Your task to perform on an android device: open app "DoorDash - Food Delivery" (install if not already installed), go to login, and select forgot password Image 0: 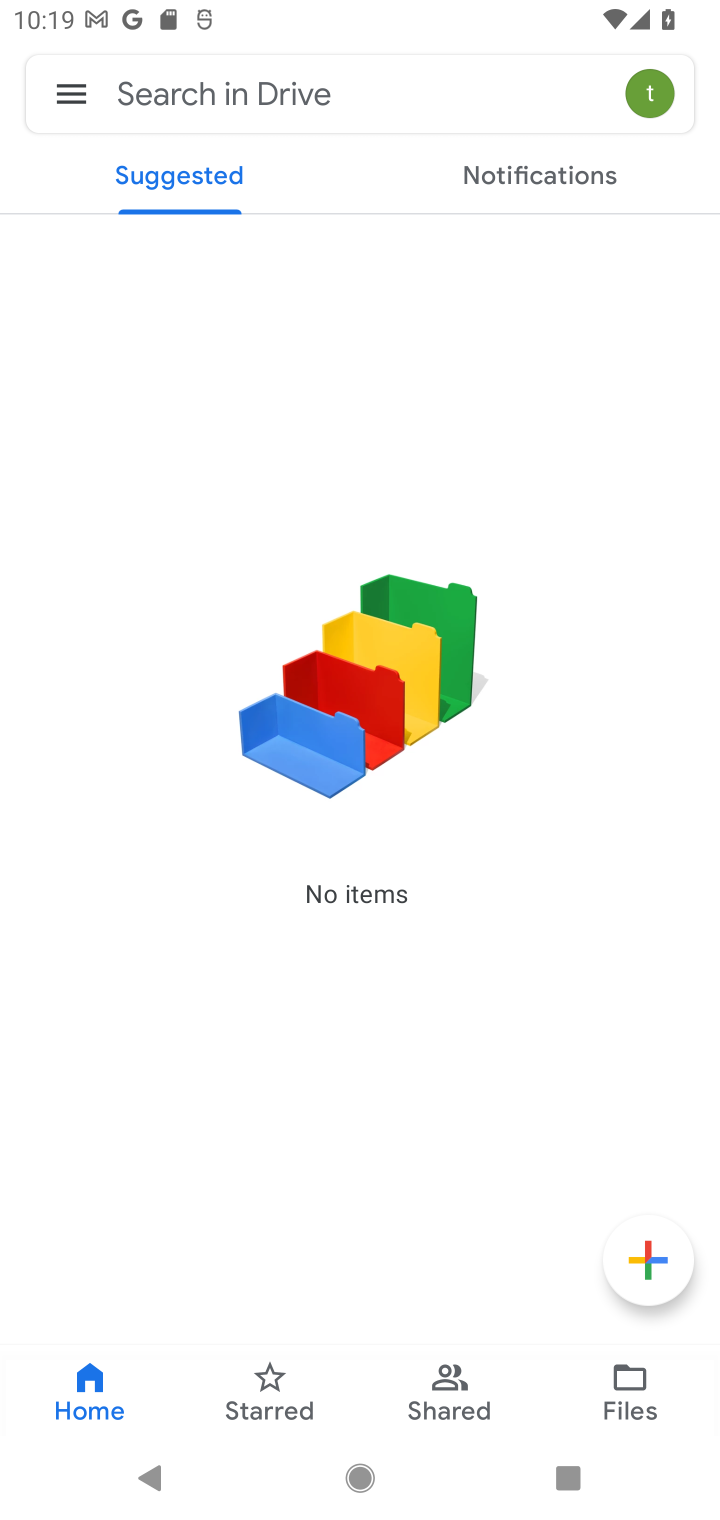
Step 0: press home button
Your task to perform on an android device: open app "DoorDash - Food Delivery" (install if not already installed), go to login, and select forgot password Image 1: 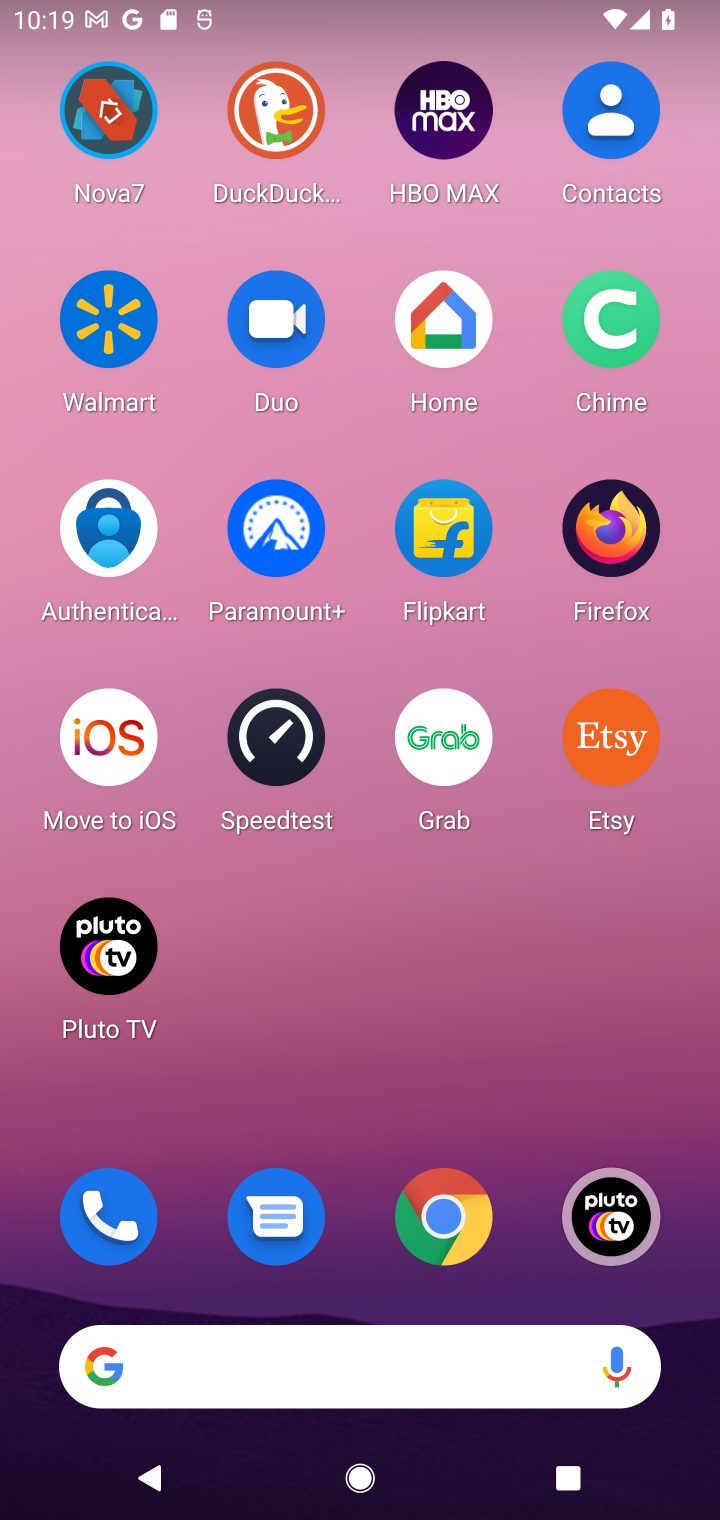
Step 1: press home button
Your task to perform on an android device: open app "DoorDash - Food Delivery" (install if not already installed), go to login, and select forgot password Image 2: 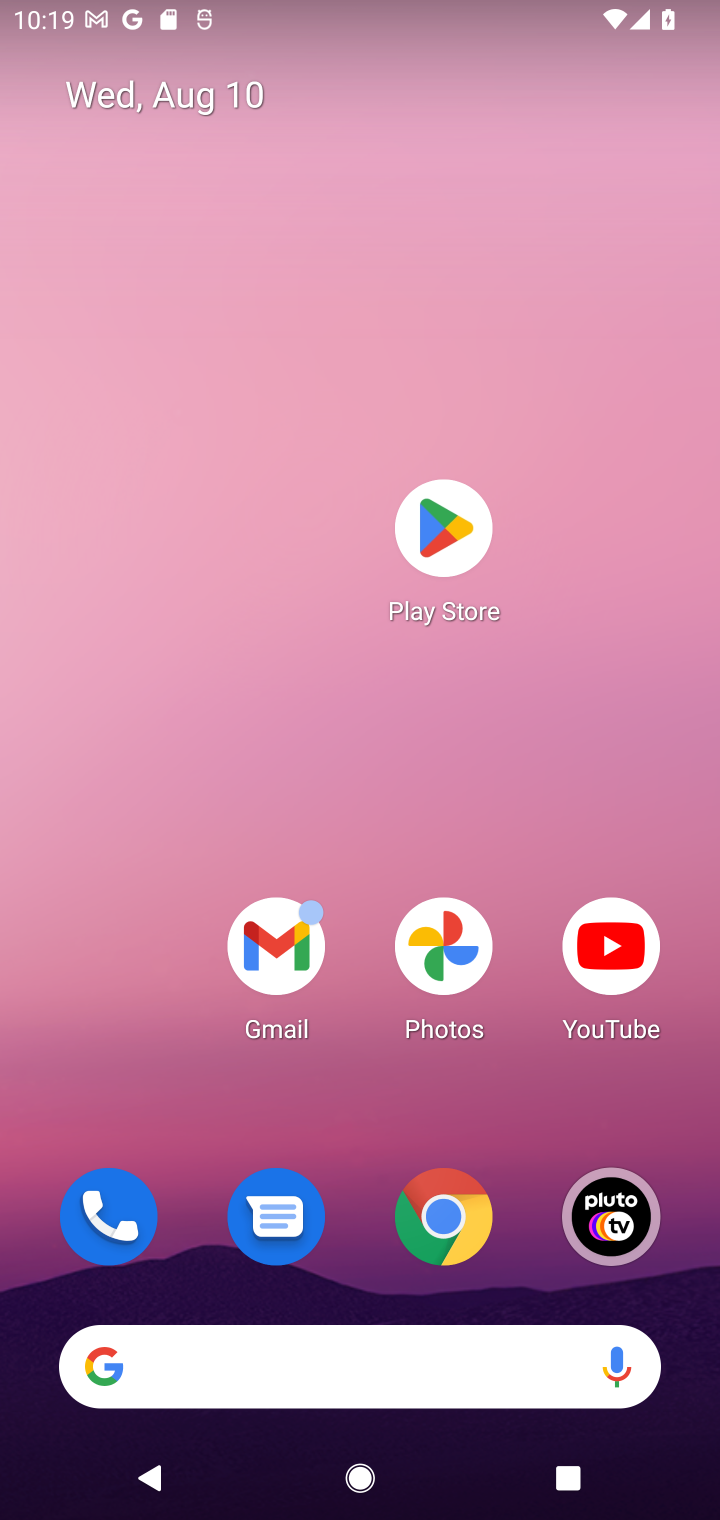
Step 2: click (443, 536)
Your task to perform on an android device: open app "DoorDash - Food Delivery" (install if not already installed), go to login, and select forgot password Image 3: 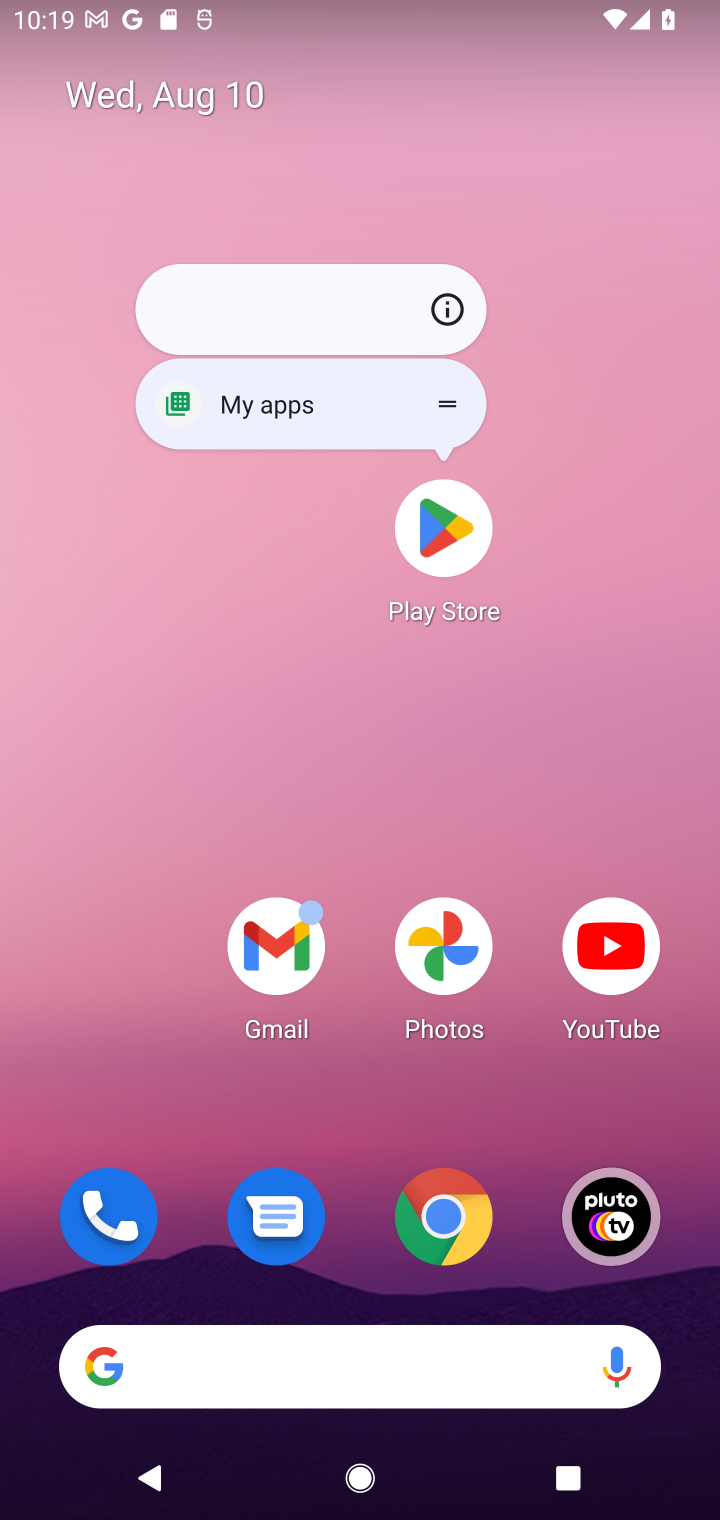
Step 3: click (443, 533)
Your task to perform on an android device: open app "DoorDash - Food Delivery" (install if not already installed), go to login, and select forgot password Image 4: 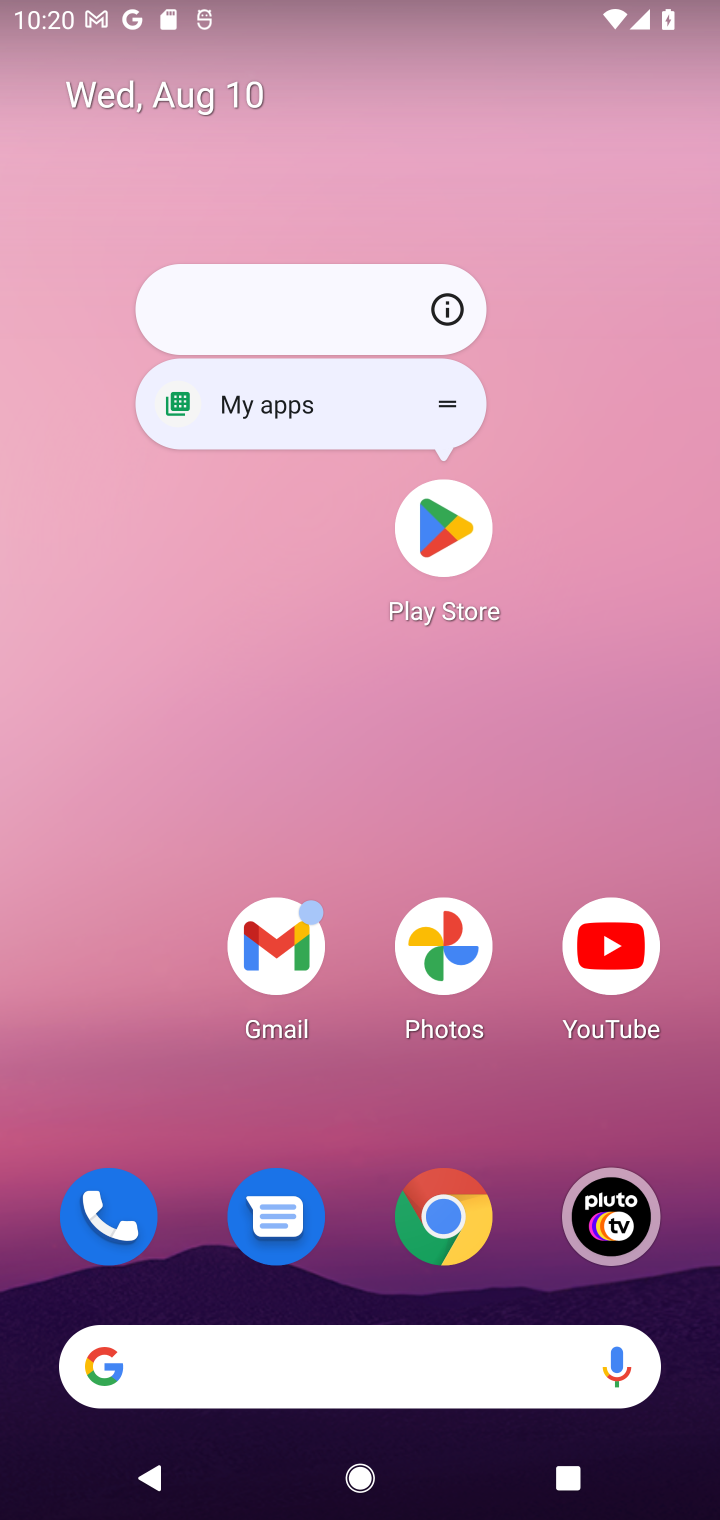
Step 4: click (443, 531)
Your task to perform on an android device: open app "DoorDash - Food Delivery" (install if not already installed), go to login, and select forgot password Image 5: 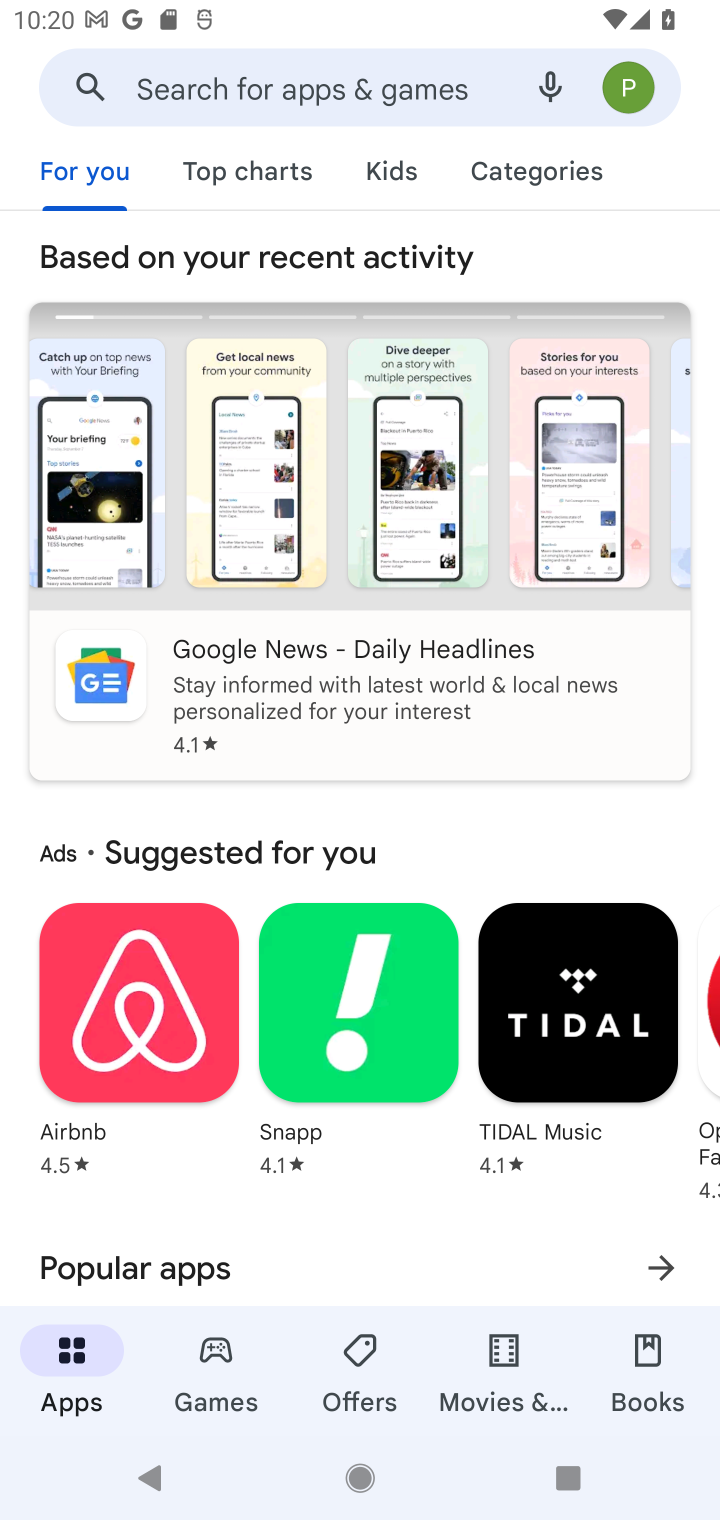
Step 5: click (489, 79)
Your task to perform on an android device: open app "DoorDash - Food Delivery" (install if not already installed), go to login, and select forgot password Image 6: 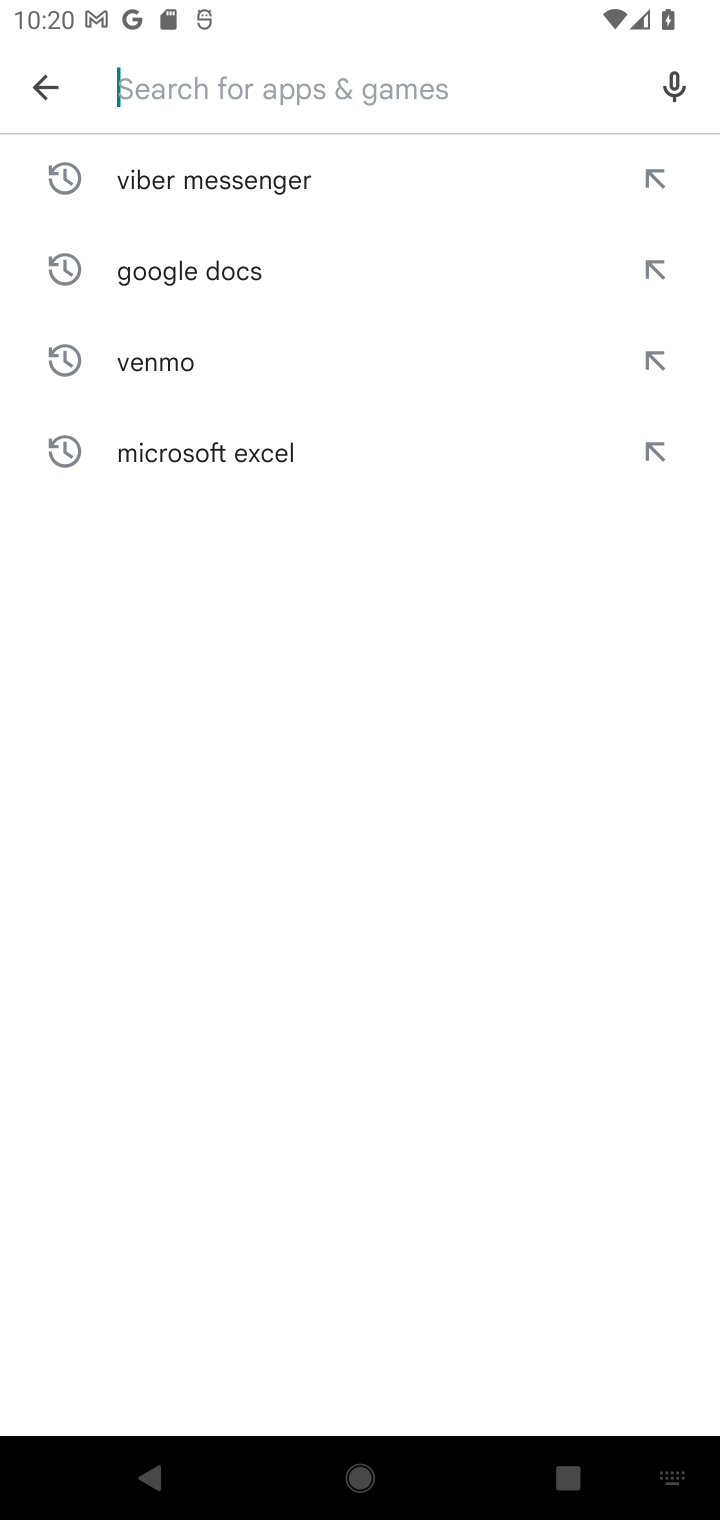
Step 6: type "DoorDash - Food Delivery"
Your task to perform on an android device: open app "DoorDash - Food Delivery" (install if not already installed), go to login, and select forgot password Image 7: 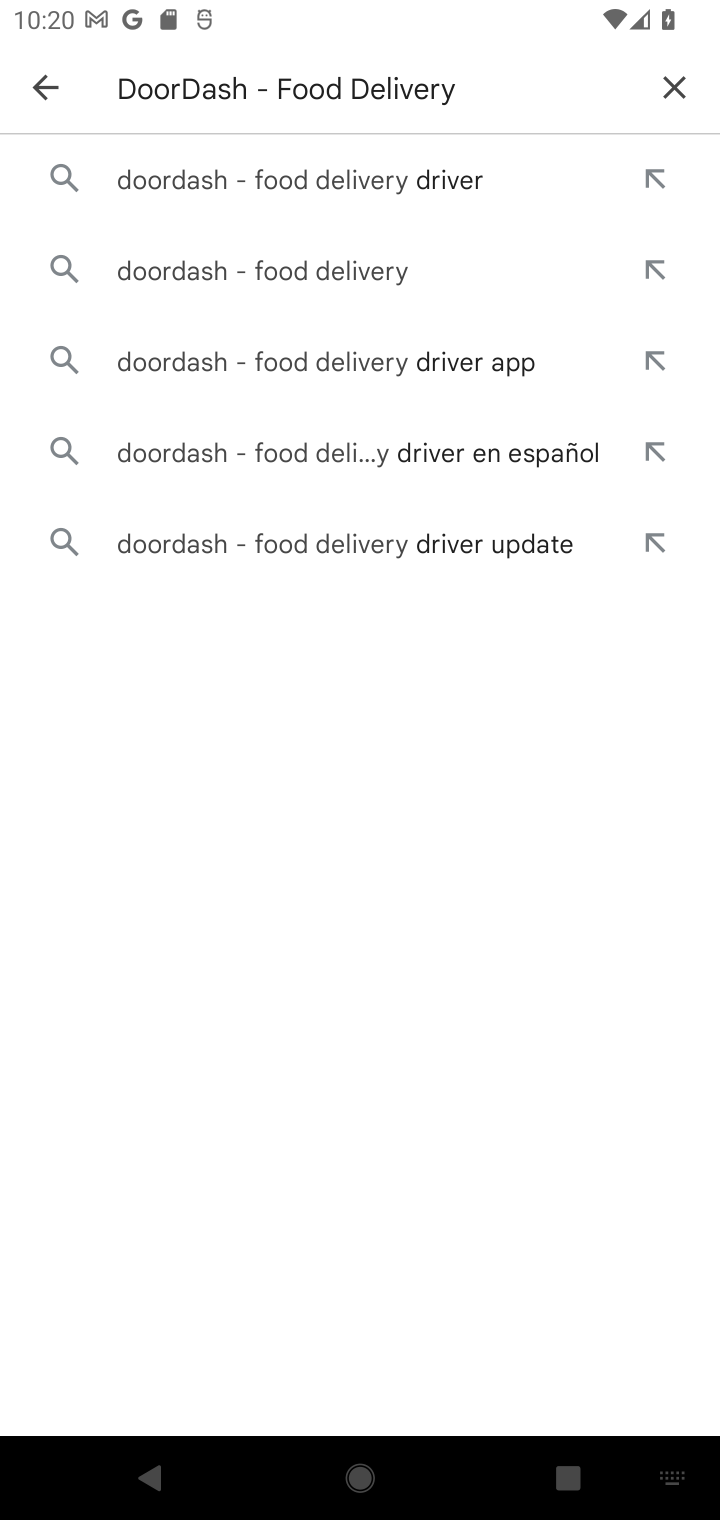
Step 7: click (303, 181)
Your task to perform on an android device: open app "DoorDash - Food Delivery" (install if not already installed), go to login, and select forgot password Image 8: 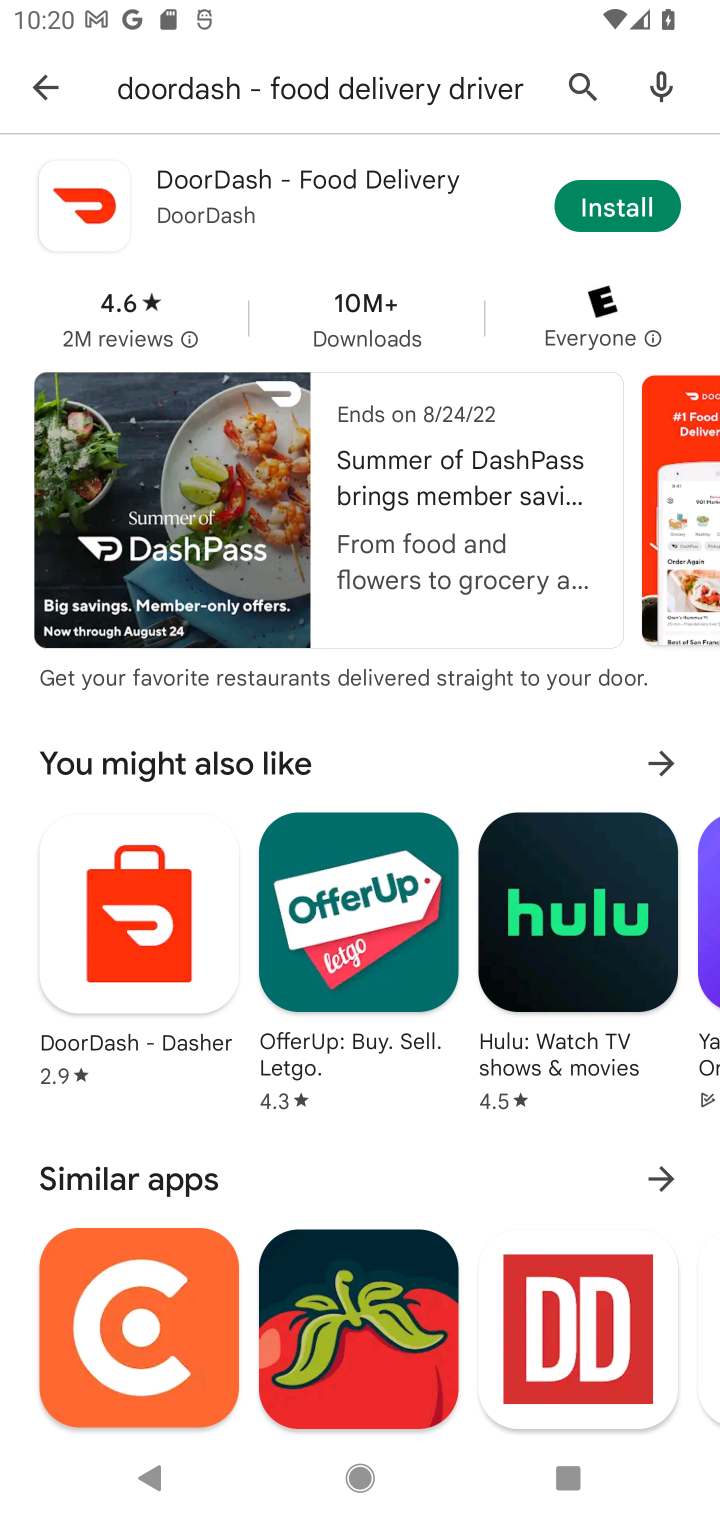
Step 8: click (622, 214)
Your task to perform on an android device: open app "DoorDash - Food Delivery" (install if not already installed), go to login, and select forgot password Image 9: 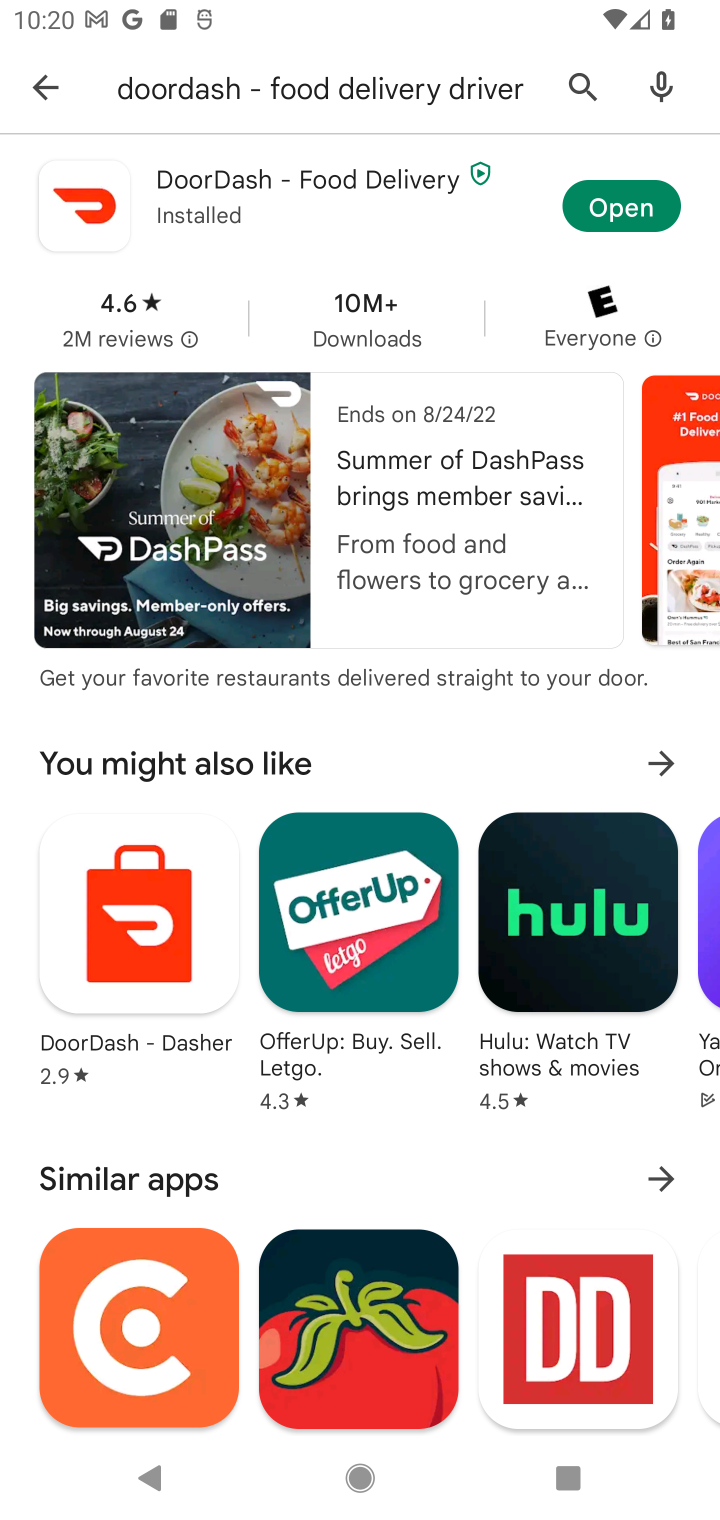
Step 9: click (630, 208)
Your task to perform on an android device: open app "DoorDash - Food Delivery" (install if not already installed), go to login, and select forgot password Image 10: 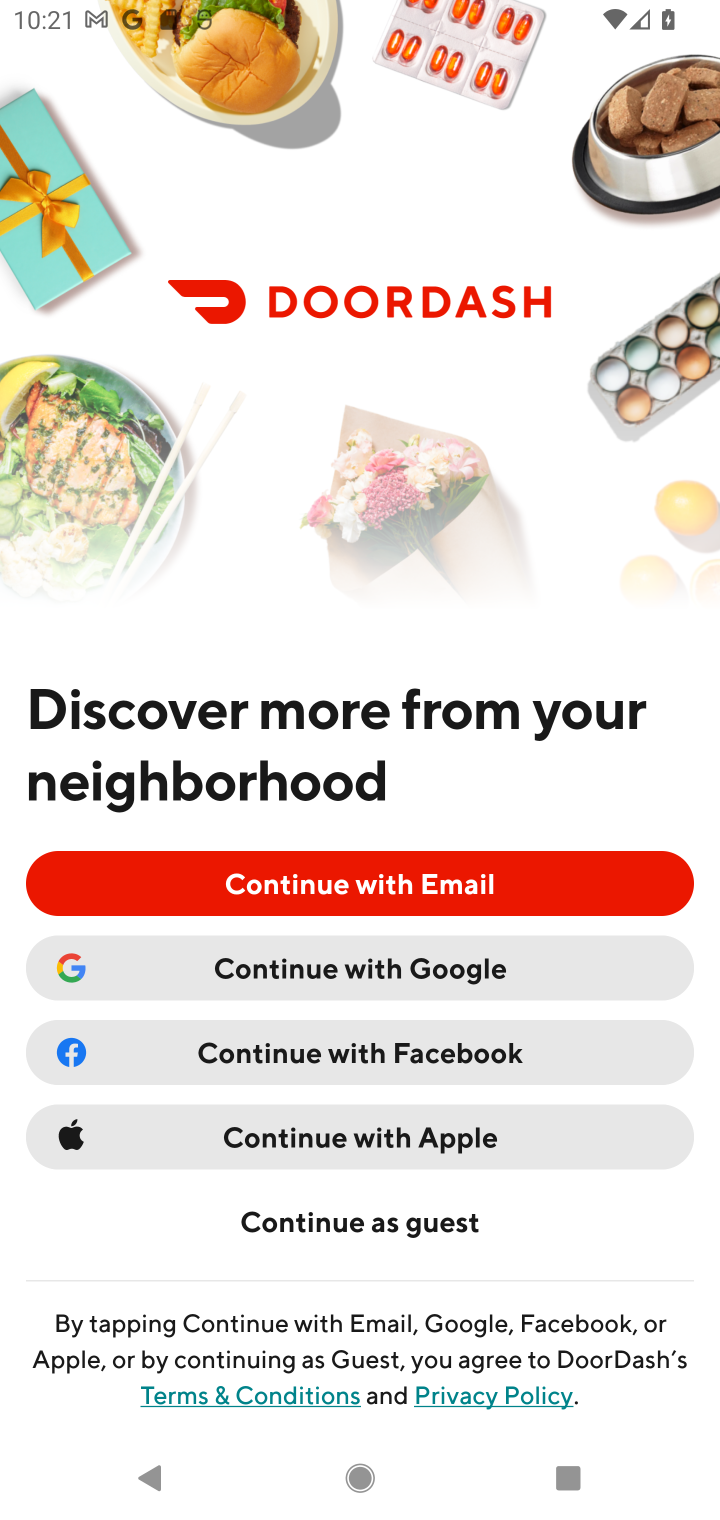
Step 10: task complete